Your task to perform on an android device: Open Google Chrome and open the bookmarks view Image 0: 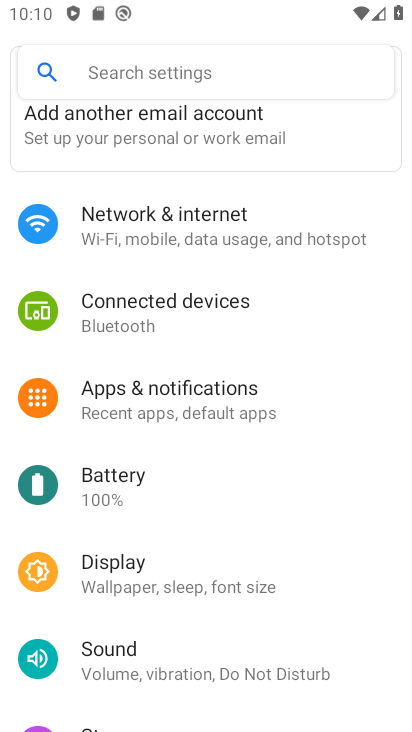
Step 0: press home button
Your task to perform on an android device: Open Google Chrome and open the bookmarks view Image 1: 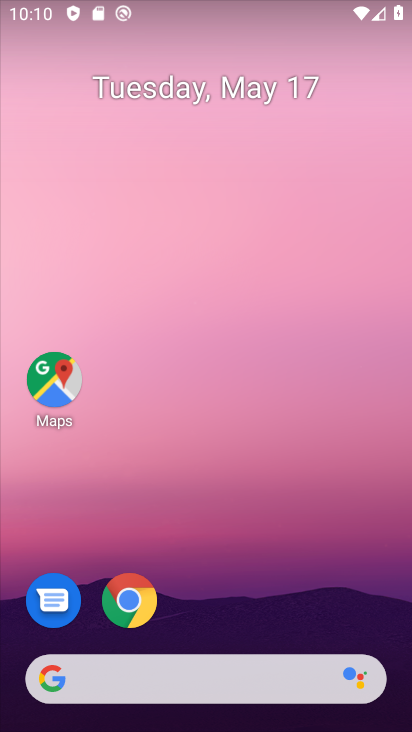
Step 1: drag from (325, 624) to (338, 100)
Your task to perform on an android device: Open Google Chrome and open the bookmarks view Image 2: 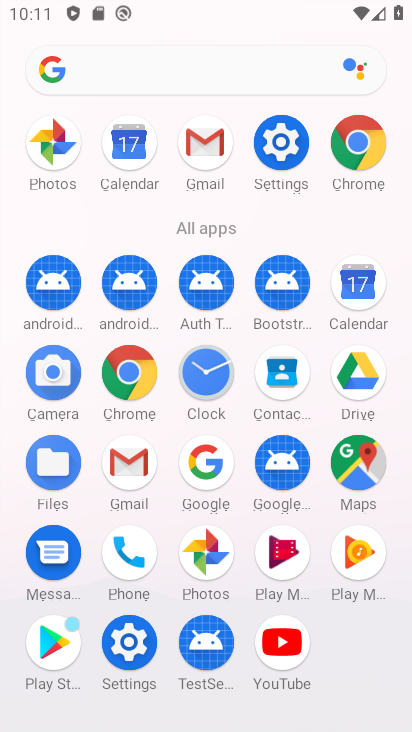
Step 2: click (145, 384)
Your task to perform on an android device: Open Google Chrome and open the bookmarks view Image 3: 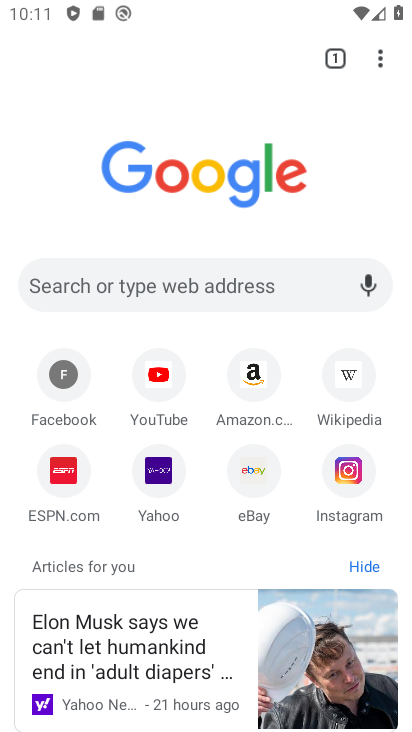
Step 3: click (383, 65)
Your task to perform on an android device: Open Google Chrome and open the bookmarks view Image 4: 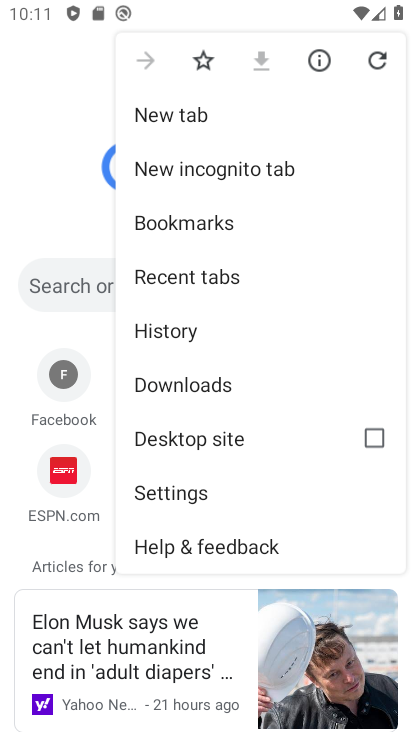
Step 4: drag from (264, 453) to (249, 383)
Your task to perform on an android device: Open Google Chrome and open the bookmarks view Image 5: 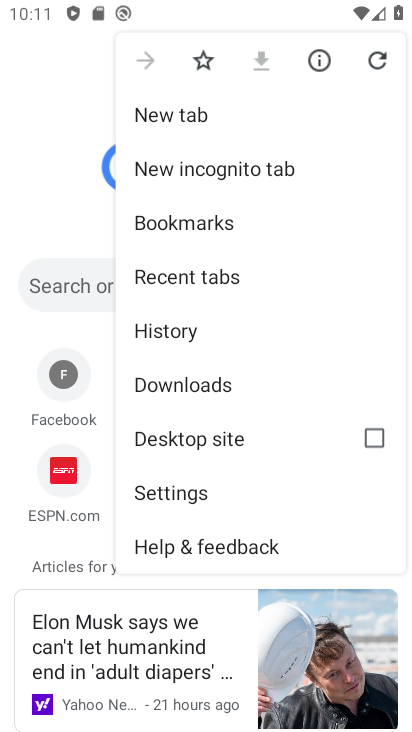
Step 5: click (221, 217)
Your task to perform on an android device: Open Google Chrome and open the bookmarks view Image 6: 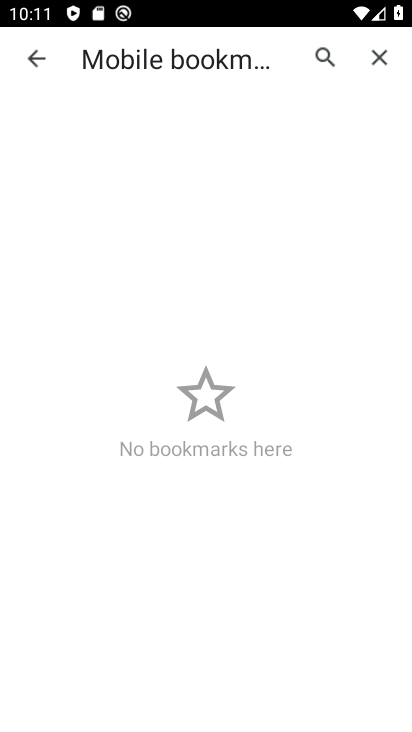
Step 6: task complete